Your task to perform on an android device: Open location settings Image 0: 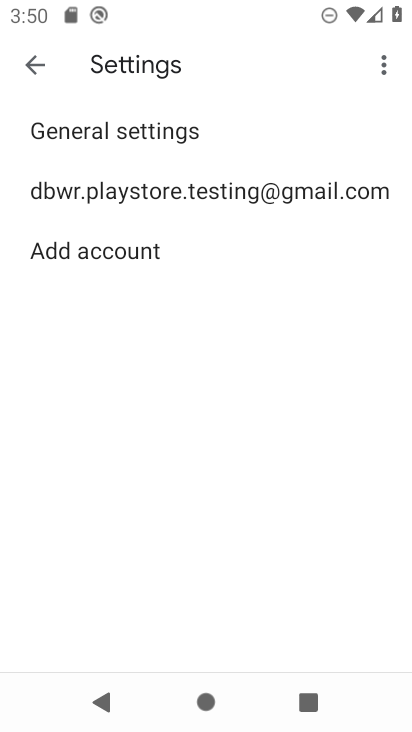
Step 0: press home button
Your task to perform on an android device: Open location settings Image 1: 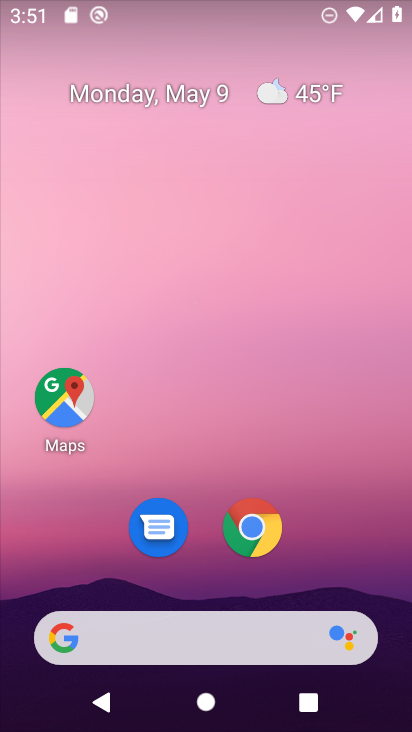
Step 1: drag from (338, 572) to (248, 55)
Your task to perform on an android device: Open location settings Image 2: 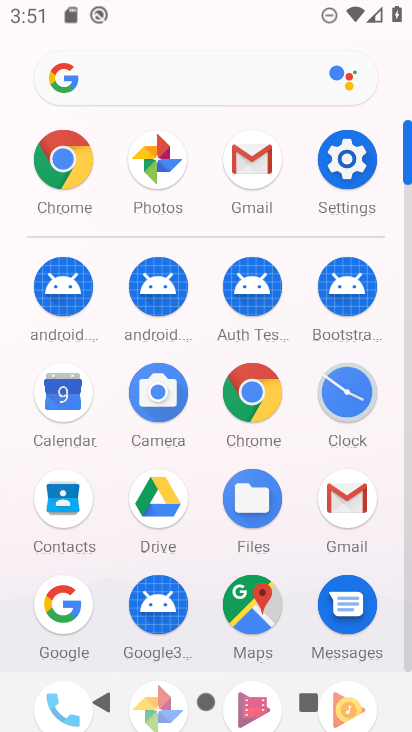
Step 2: click (349, 166)
Your task to perform on an android device: Open location settings Image 3: 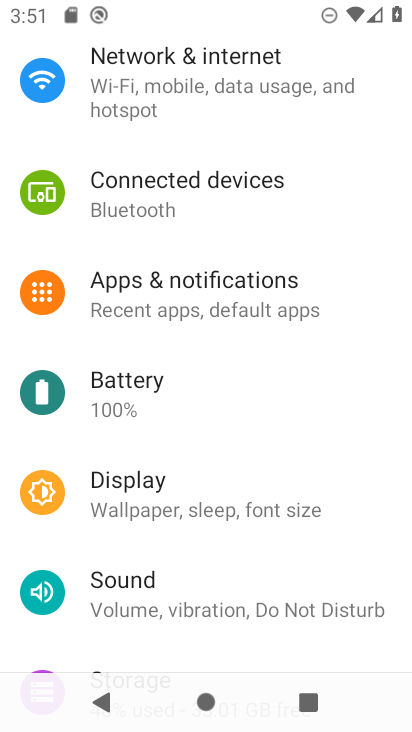
Step 3: drag from (302, 600) to (297, 167)
Your task to perform on an android device: Open location settings Image 4: 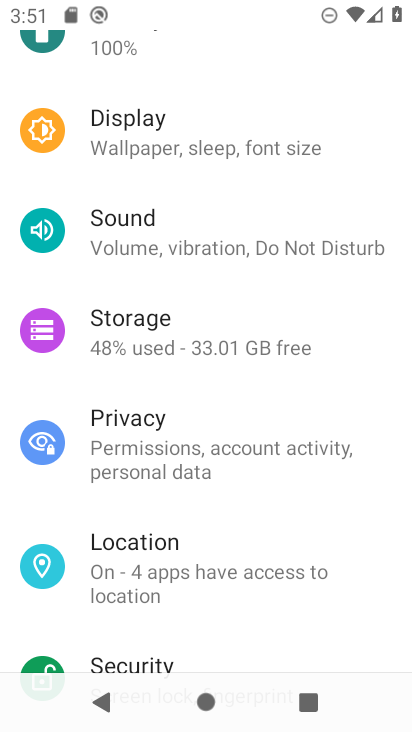
Step 4: click (315, 560)
Your task to perform on an android device: Open location settings Image 5: 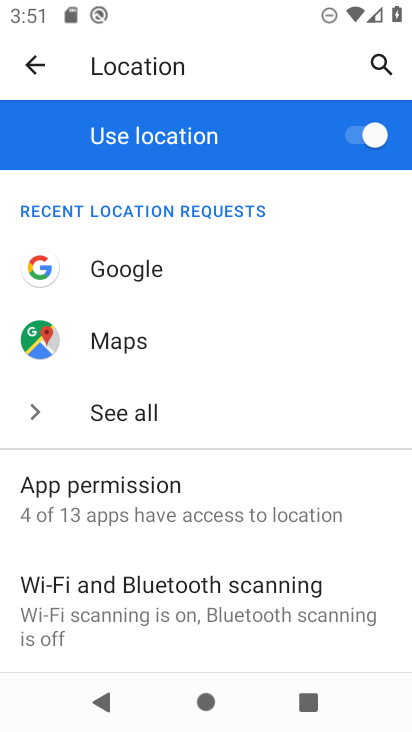
Step 5: task complete